Your task to perform on an android device: Search for Mexican restaurants on Maps Image 0: 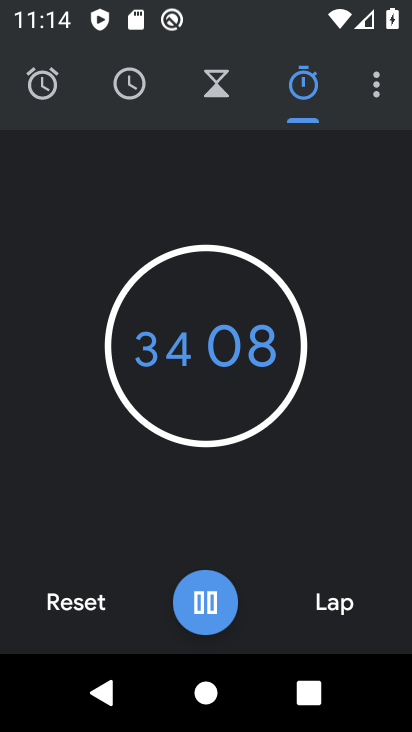
Step 0: task complete